Your task to perform on an android device: See recent photos Image 0: 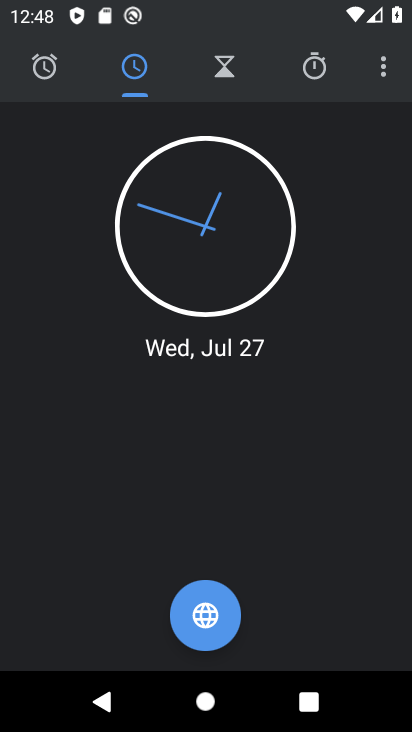
Step 0: press home button
Your task to perform on an android device: See recent photos Image 1: 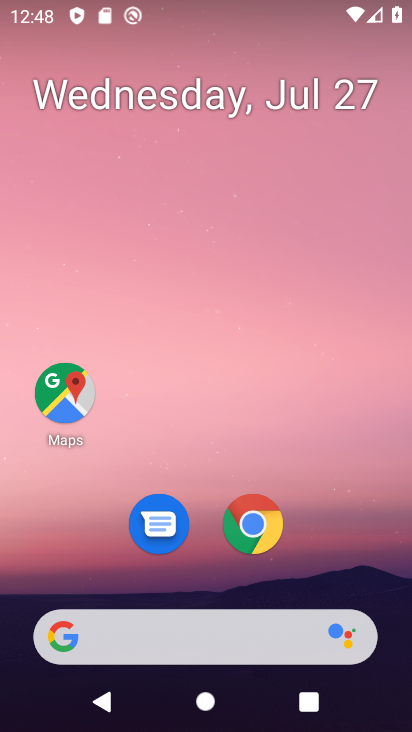
Step 1: drag from (329, 557) to (342, 76)
Your task to perform on an android device: See recent photos Image 2: 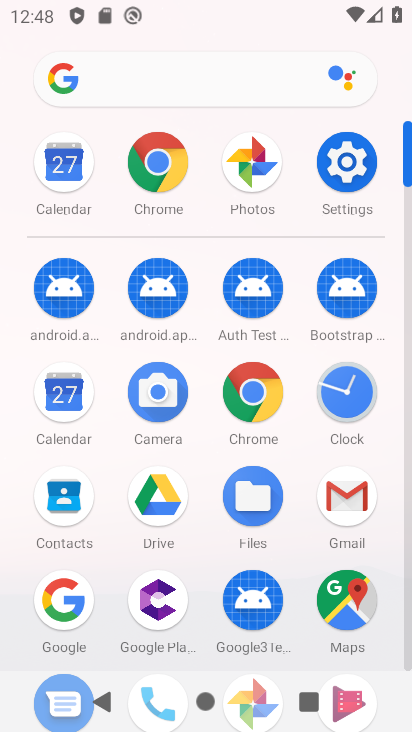
Step 2: click (250, 164)
Your task to perform on an android device: See recent photos Image 3: 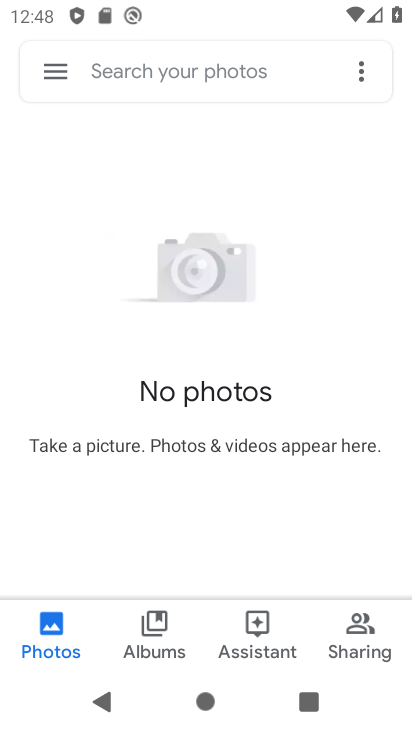
Step 3: task complete